Your task to perform on an android device: turn off notifications in google photos Image 0: 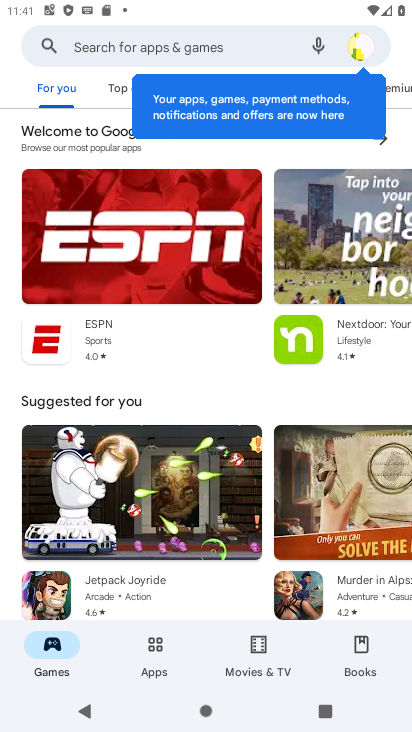
Step 0: press home button
Your task to perform on an android device: turn off notifications in google photos Image 1: 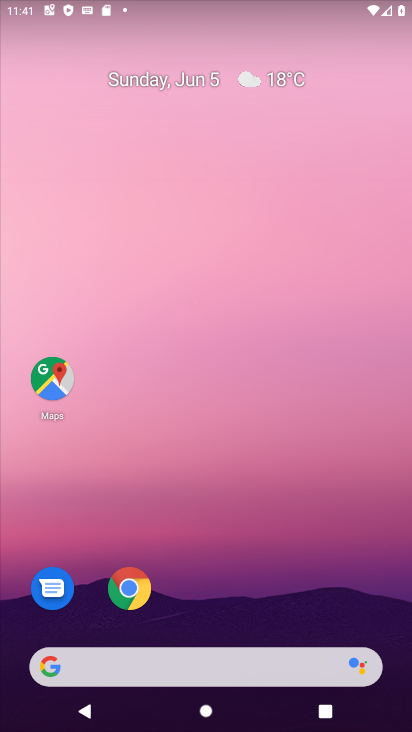
Step 1: drag from (246, 610) to (192, 137)
Your task to perform on an android device: turn off notifications in google photos Image 2: 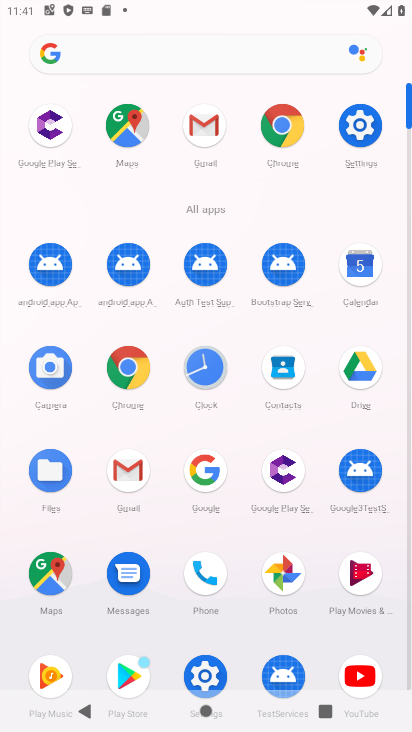
Step 2: click (283, 577)
Your task to perform on an android device: turn off notifications in google photos Image 3: 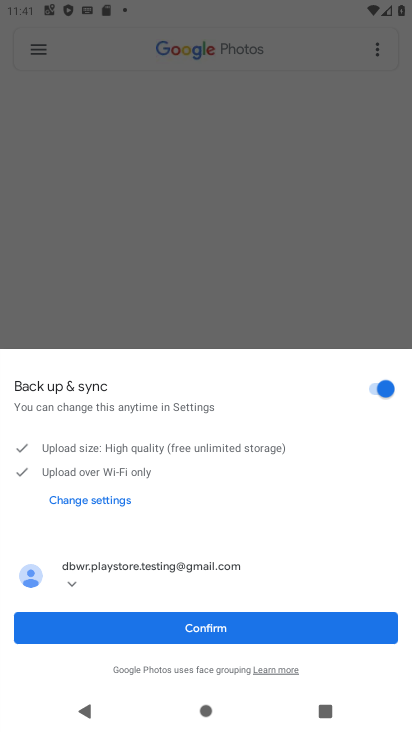
Step 3: click (283, 628)
Your task to perform on an android device: turn off notifications in google photos Image 4: 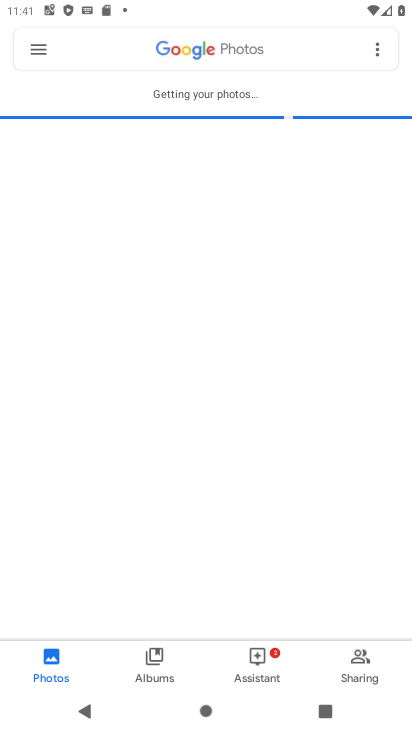
Step 4: click (38, 54)
Your task to perform on an android device: turn off notifications in google photos Image 5: 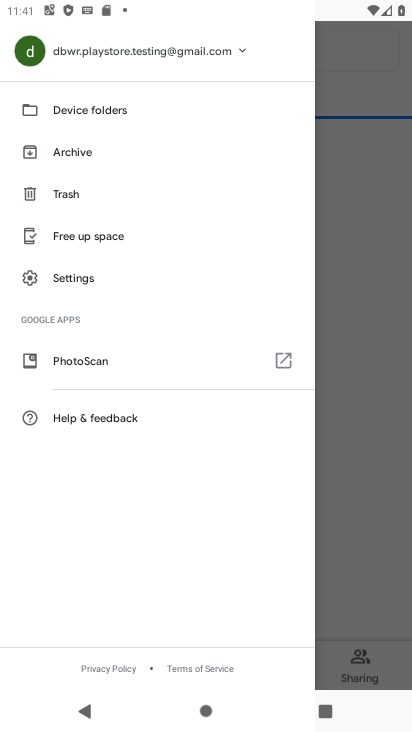
Step 5: click (112, 273)
Your task to perform on an android device: turn off notifications in google photos Image 6: 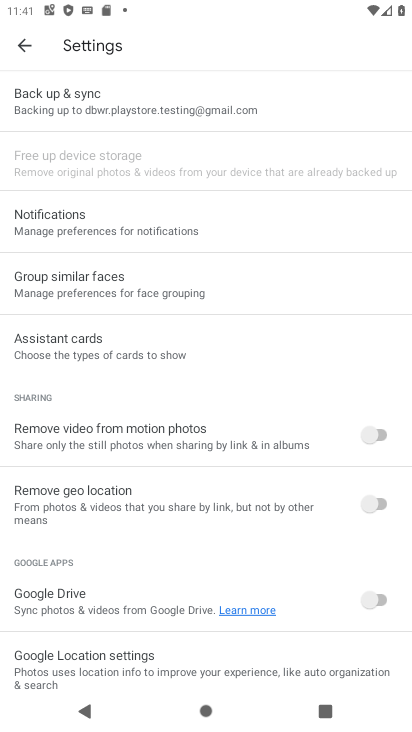
Step 6: click (146, 237)
Your task to perform on an android device: turn off notifications in google photos Image 7: 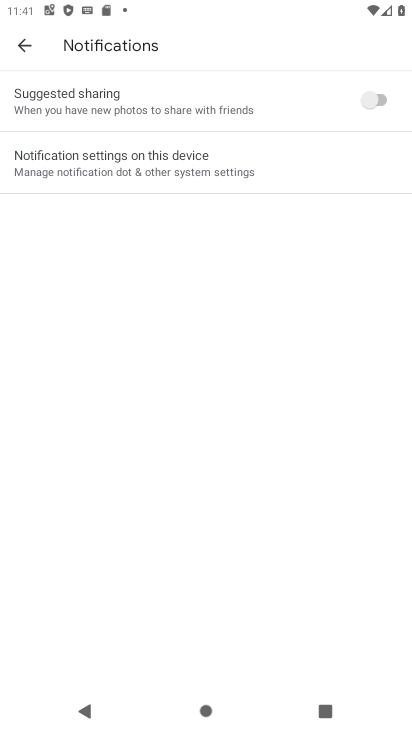
Step 7: click (197, 179)
Your task to perform on an android device: turn off notifications in google photos Image 8: 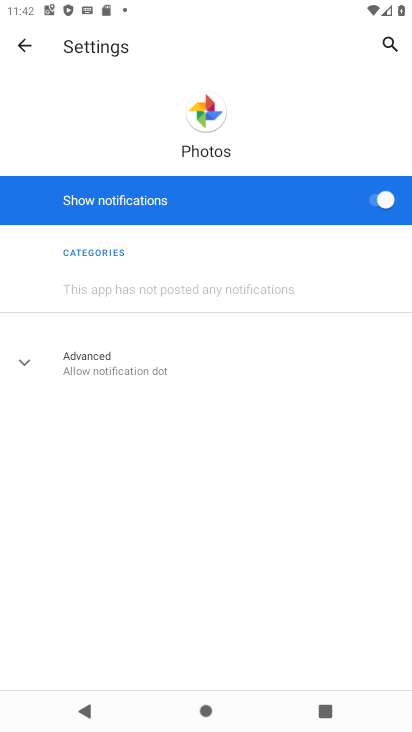
Step 8: click (382, 195)
Your task to perform on an android device: turn off notifications in google photos Image 9: 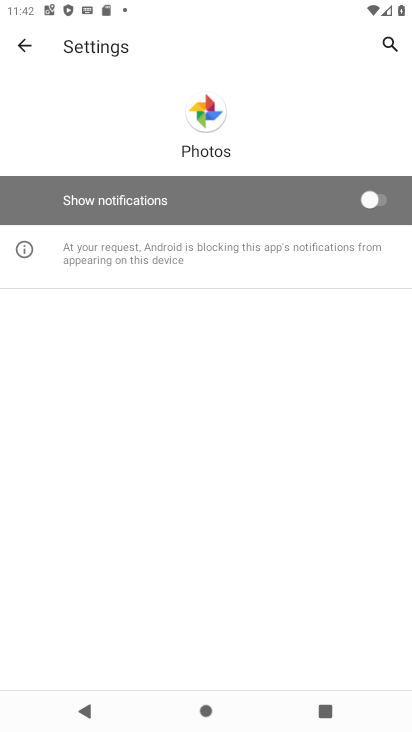
Step 9: task complete